Your task to perform on an android device: toggle location history Image 0: 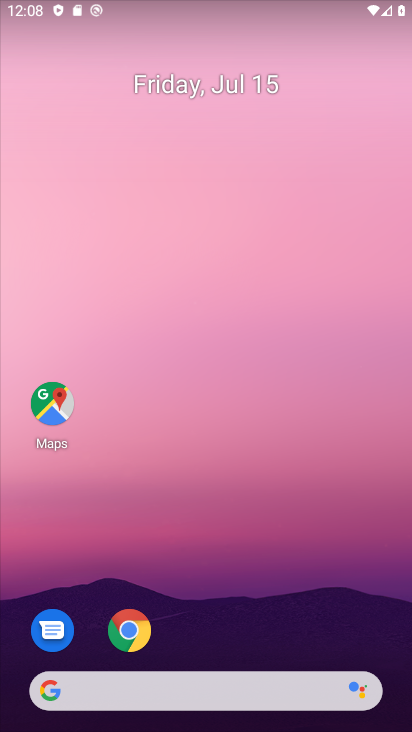
Step 0: drag from (16, 711) to (262, 134)
Your task to perform on an android device: toggle location history Image 1: 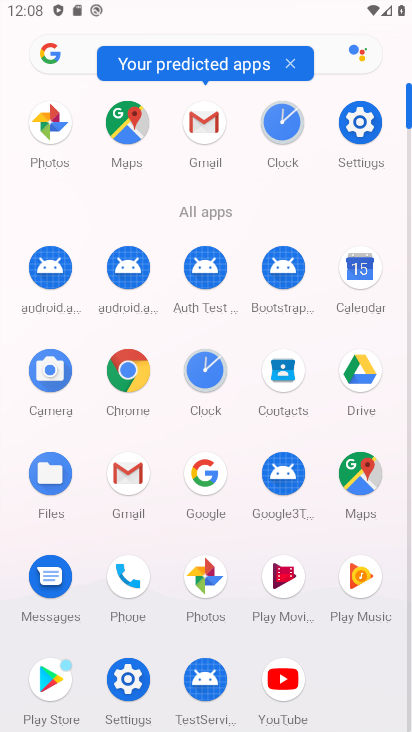
Step 1: click (130, 684)
Your task to perform on an android device: toggle location history Image 2: 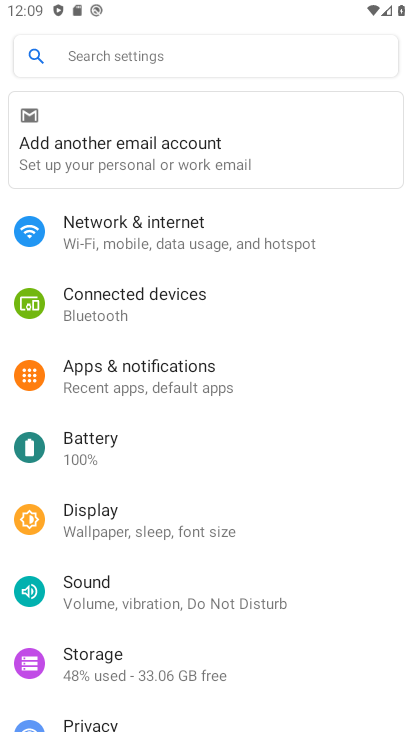
Step 2: drag from (345, 307) to (345, 29)
Your task to perform on an android device: toggle location history Image 3: 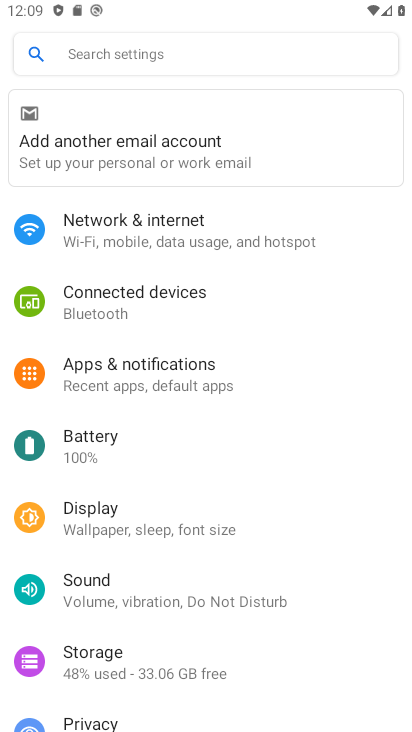
Step 3: drag from (282, 696) to (313, 479)
Your task to perform on an android device: toggle location history Image 4: 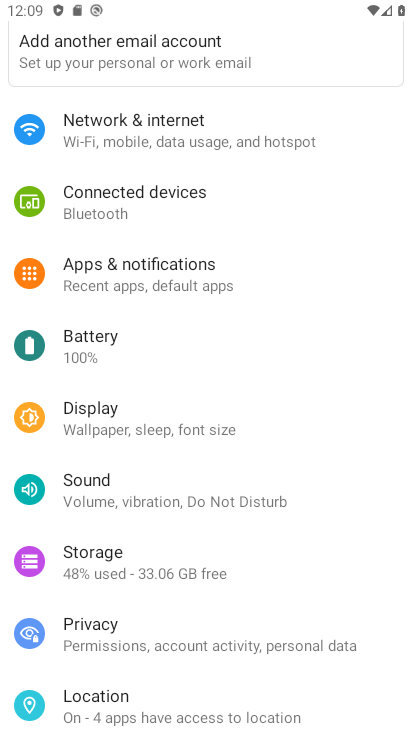
Step 4: click (121, 711)
Your task to perform on an android device: toggle location history Image 5: 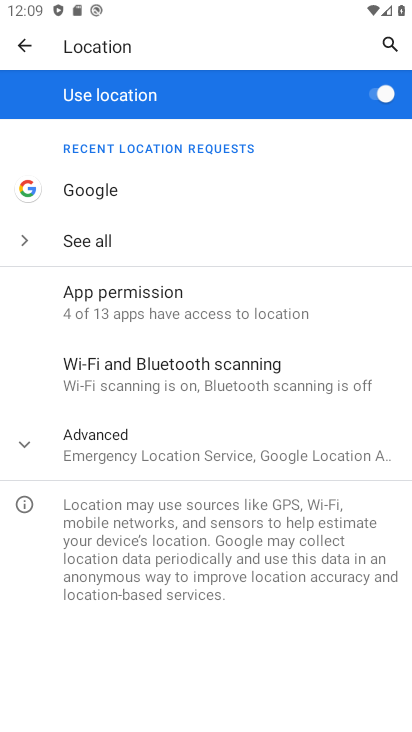
Step 5: click (257, 438)
Your task to perform on an android device: toggle location history Image 6: 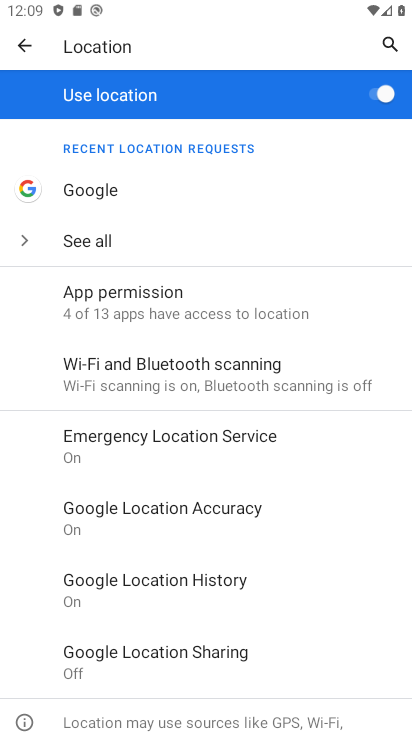
Step 6: task complete